Your task to perform on an android device: Open calendar and show me the first week of next month Image 0: 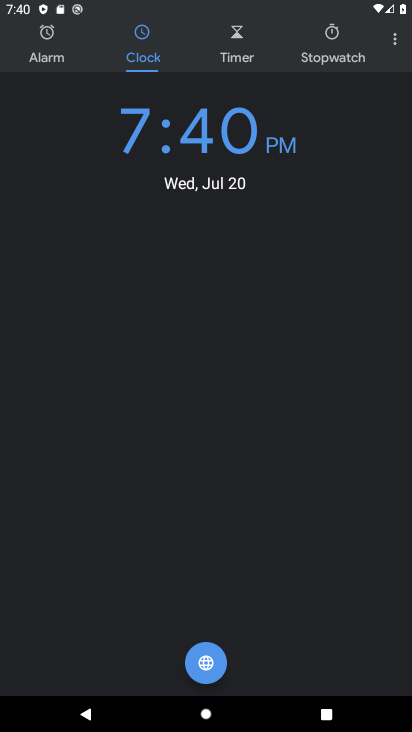
Step 0: press home button
Your task to perform on an android device: Open calendar and show me the first week of next month Image 1: 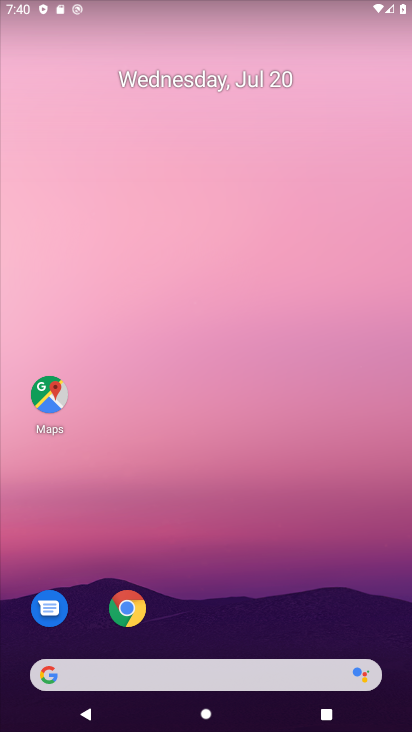
Step 1: drag from (196, 617) to (326, 0)
Your task to perform on an android device: Open calendar and show me the first week of next month Image 2: 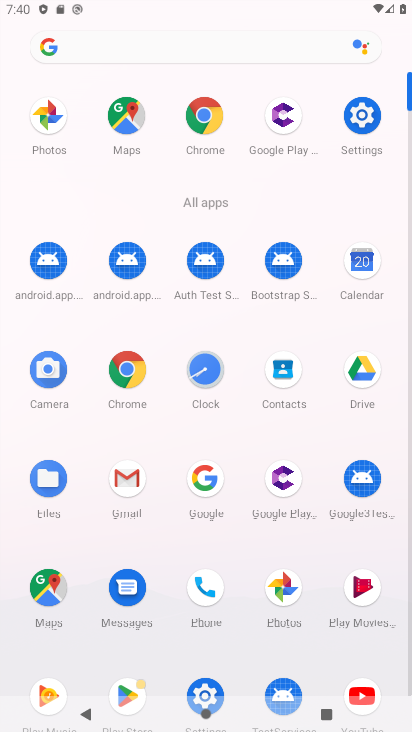
Step 2: click (364, 282)
Your task to perform on an android device: Open calendar and show me the first week of next month Image 3: 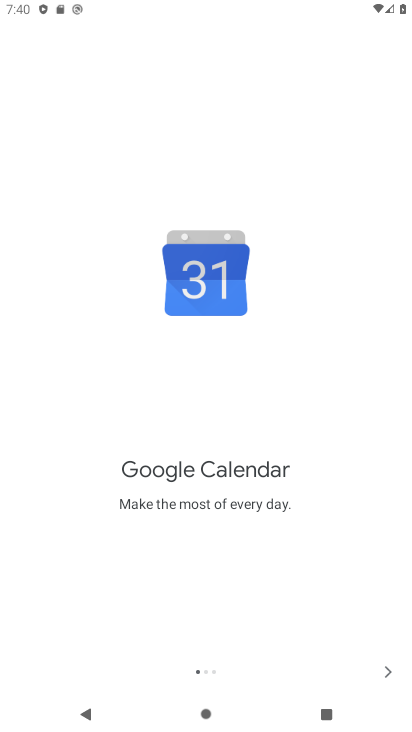
Step 3: click (378, 663)
Your task to perform on an android device: Open calendar and show me the first week of next month Image 4: 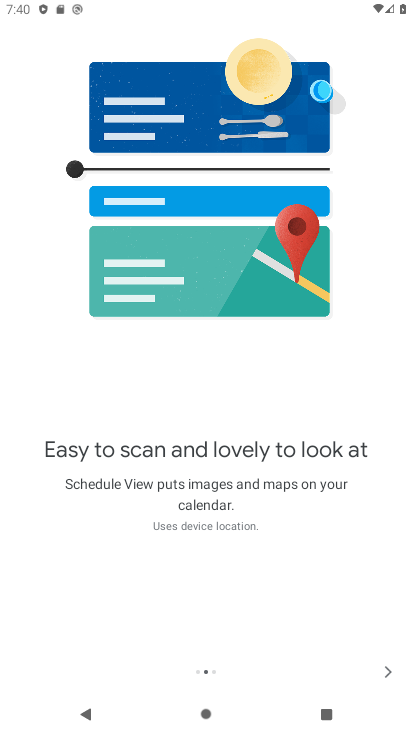
Step 4: click (382, 671)
Your task to perform on an android device: Open calendar and show me the first week of next month Image 5: 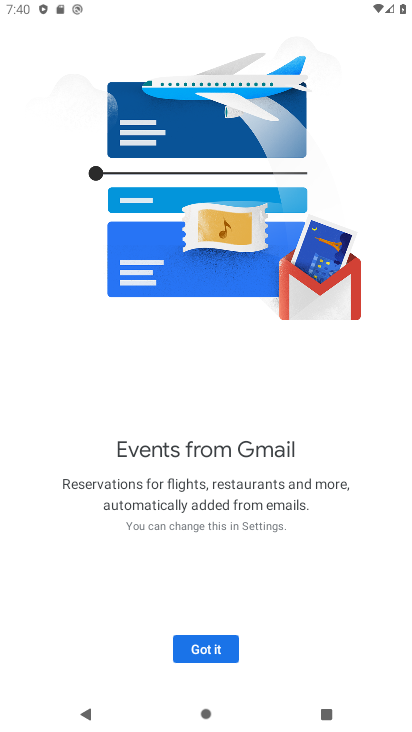
Step 5: click (224, 645)
Your task to perform on an android device: Open calendar and show me the first week of next month Image 6: 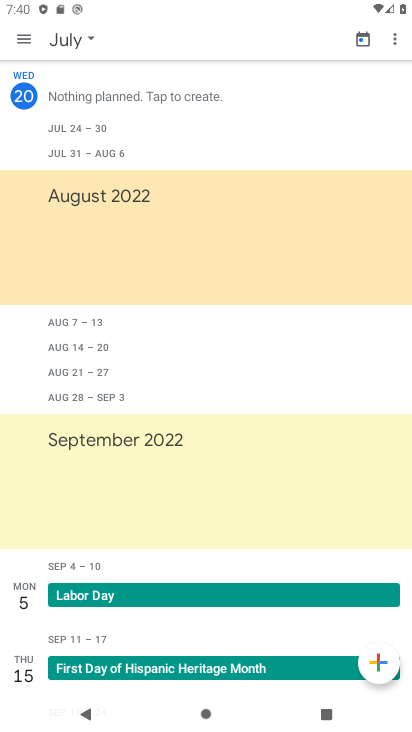
Step 6: click (26, 40)
Your task to perform on an android device: Open calendar and show me the first week of next month Image 7: 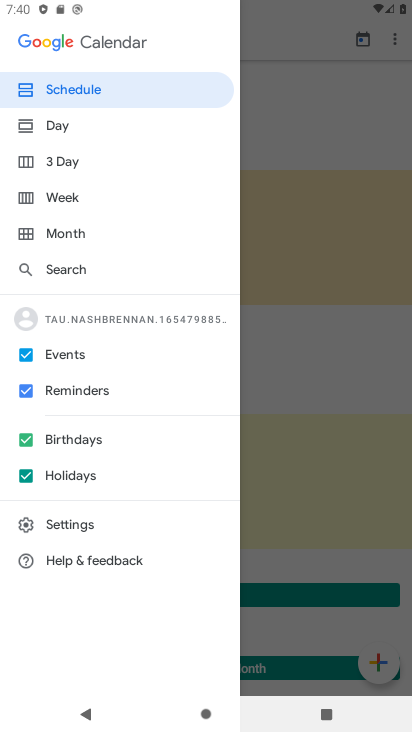
Step 7: click (68, 200)
Your task to perform on an android device: Open calendar and show me the first week of next month Image 8: 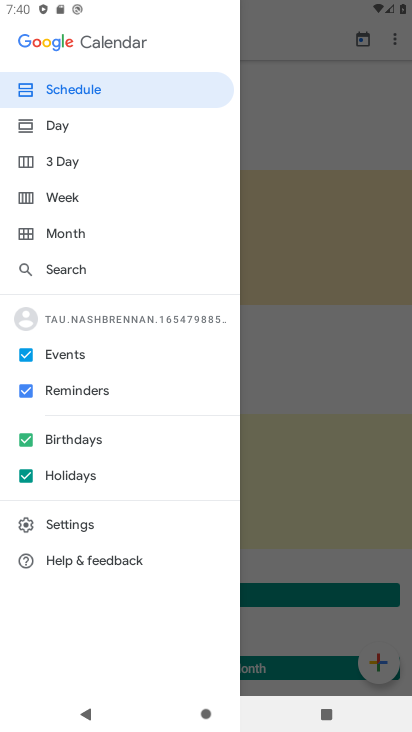
Step 8: click (68, 200)
Your task to perform on an android device: Open calendar and show me the first week of next month Image 9: 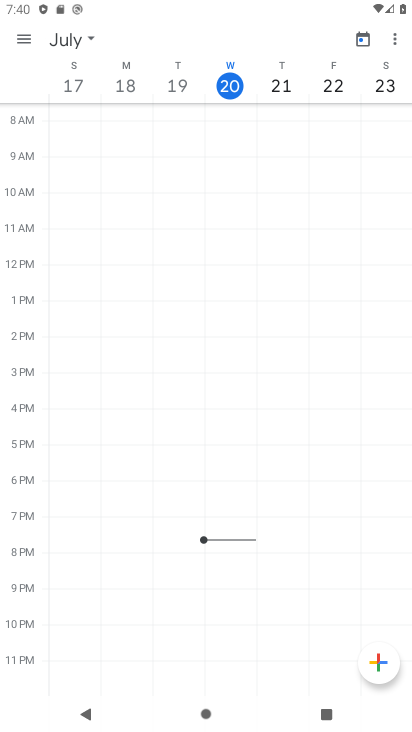
Step 9: task complete